Your task to perform on an android device: Go to Reddit.com Image 0: 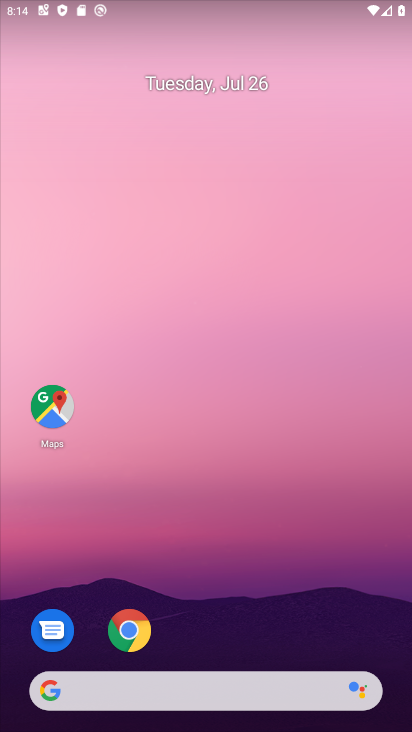
Step 0: click (201, 683)
Your task to perform on an android device: Go to Reddit.com Image 1: 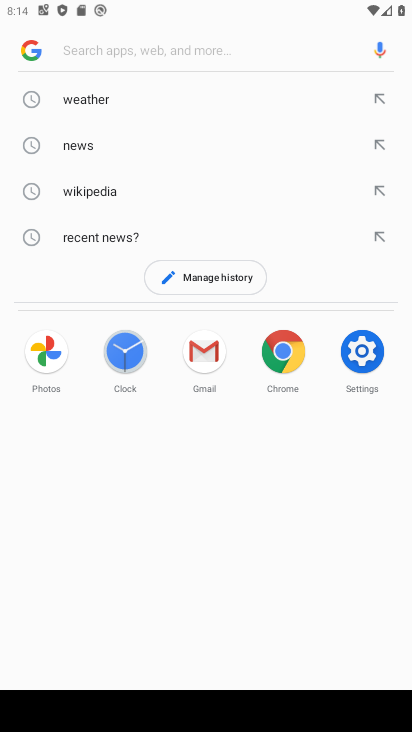
Step 1: type "reddit.com"
Your task to perform on an android device: Go to Reddit.com Image 2: 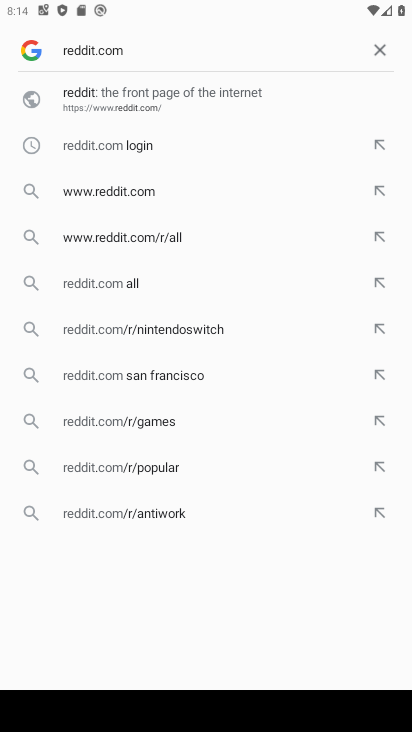
Step 2: click (133, 104)
Your task to perform on an android device: Go to Reddit.com Image 3: 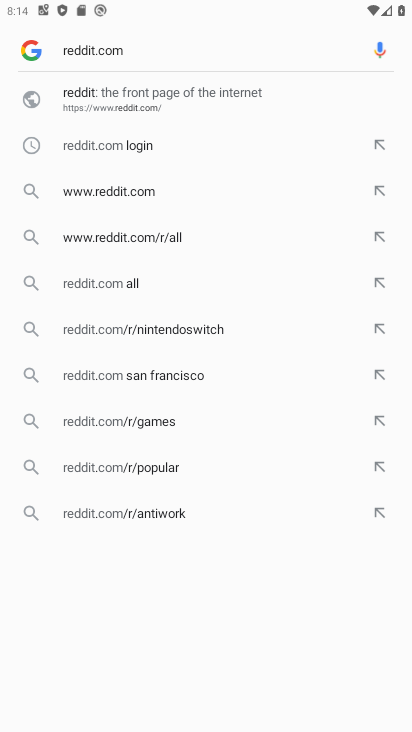
Step 3: task complete